Your task to perform on an android device: install app "DoorDash - Dasher" Image 0: 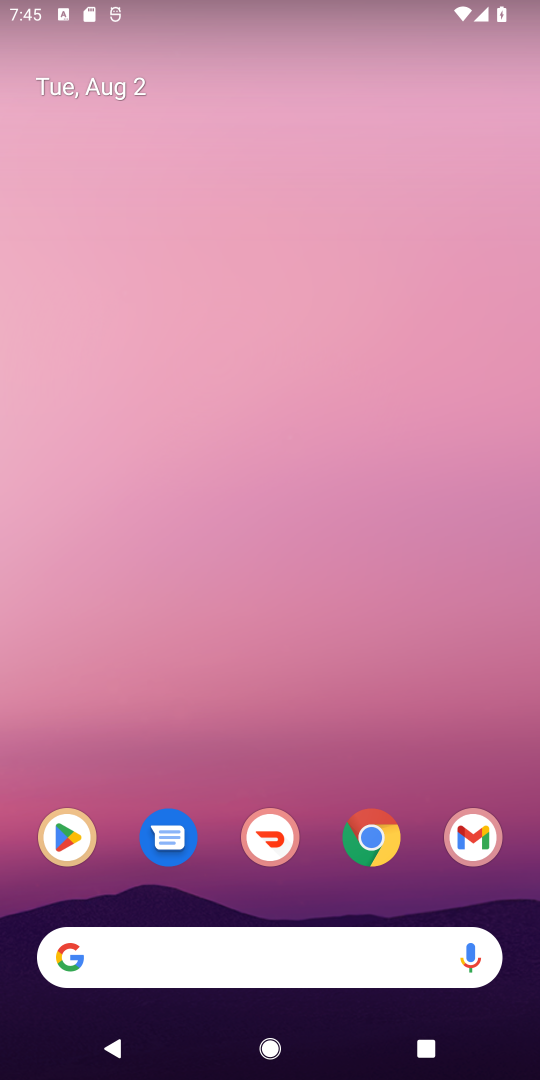
Step 0: click (65, 844)
Your task to perform on an android device: install app "DoorDash - Dasher" Image 1: 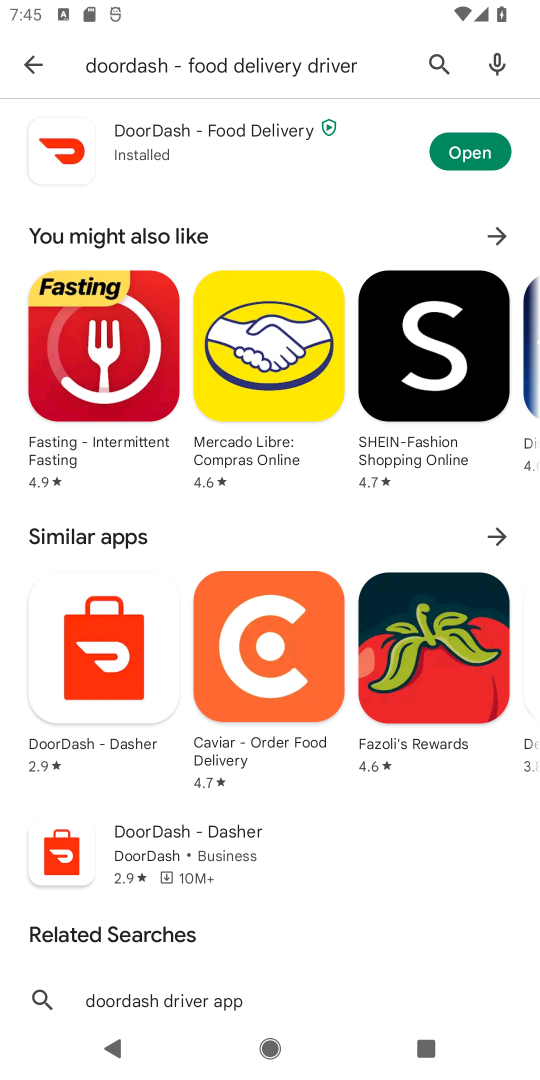
Step 1: click (437, 73)
Your task to perform on an android device: install app "DoorDash - Dasher" Image 2: 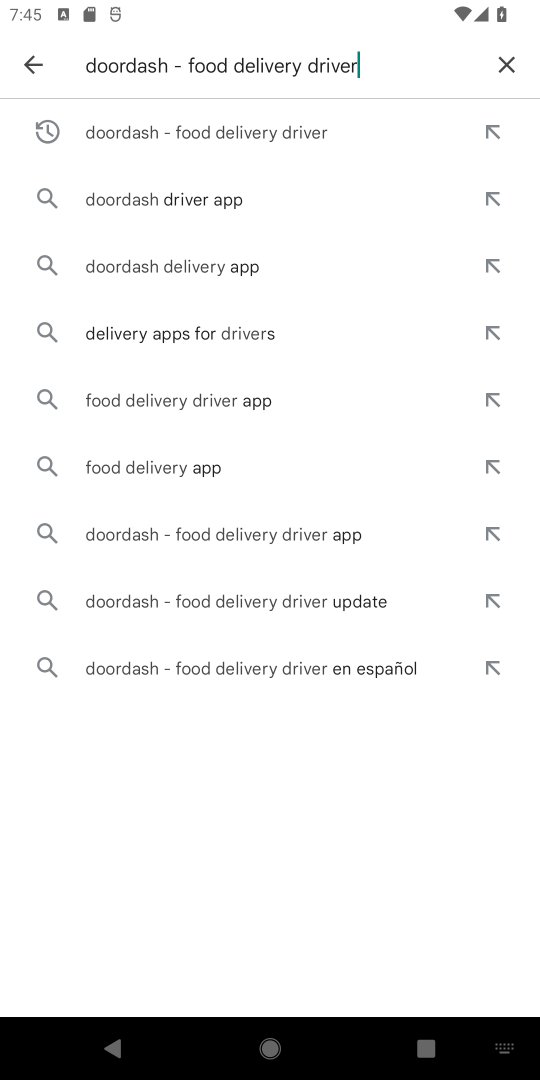
Step 2: click (499, 68)
Your task to perform on an android device: install app "DoorDash - Dasher" Image 3: 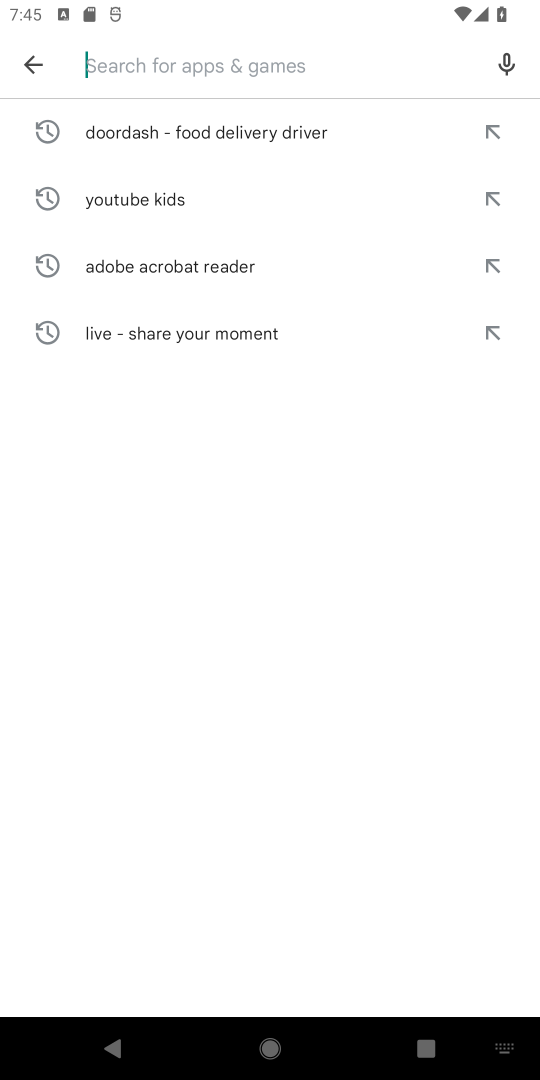
Step 3: type "DoorDash - Dasher"
Your task to perform on an android device: install app "DoorDash - Dasher" Image 4: 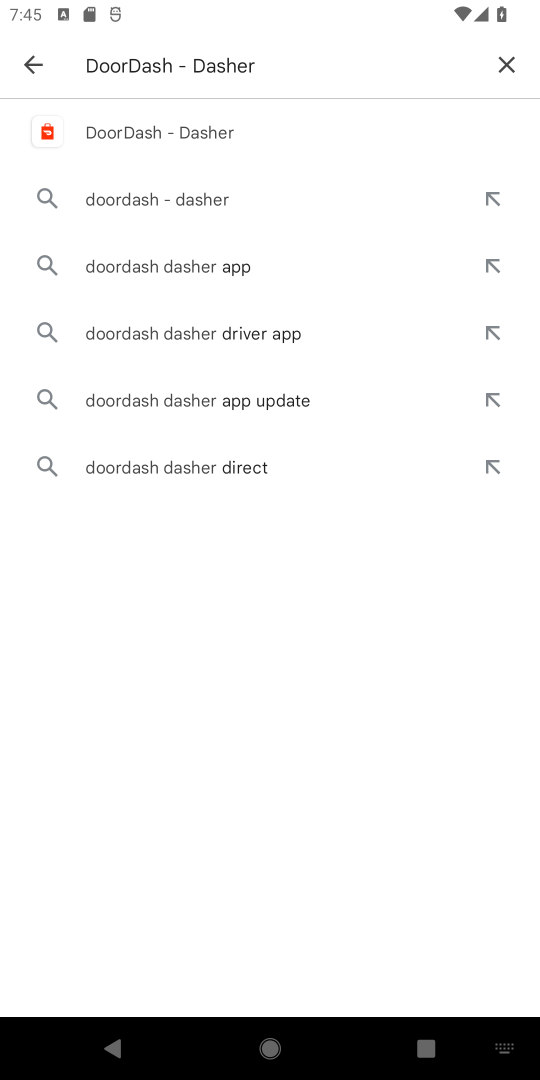
Step 4: click (164, 126)
Your task to perform on an android device: install app "DoorDash - Dasher" Image 5: 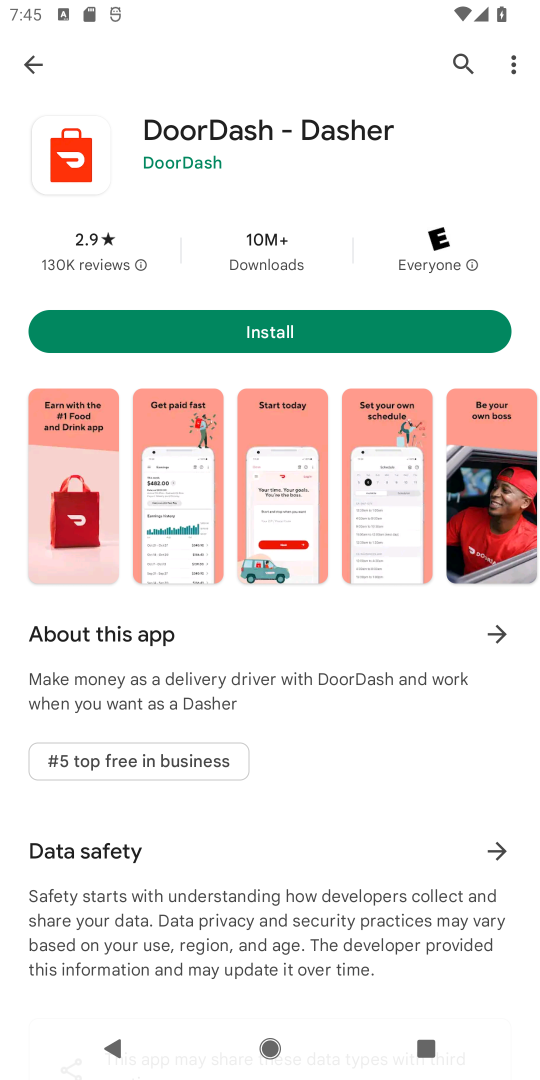
Step 5: click (230, 333)
Your task to perform on an android device: install app "DoorDash - Dasher" Image 6: 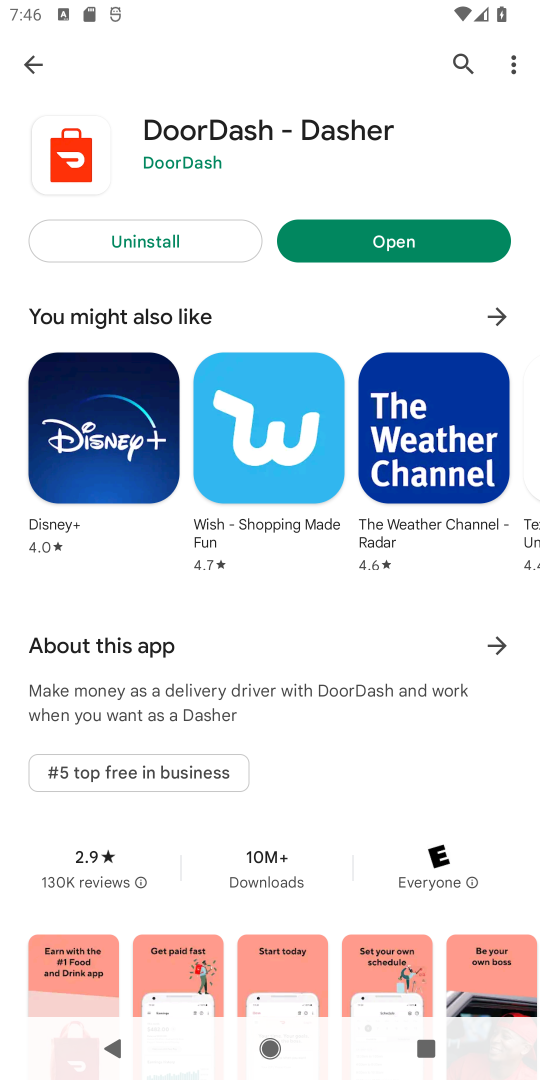
Step 6: task complete